Your task to perform on an android device: open a new tab in the chrome app Image 0: 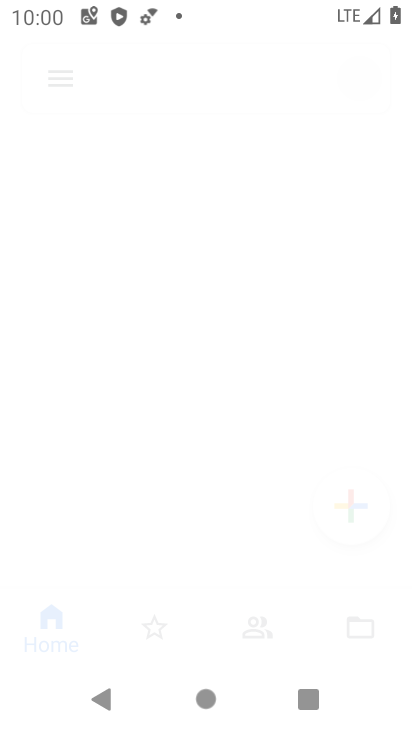
Step 0: drag from (186, 317) to (172, 147)
Your task to perform on an android device: open a new tab in the chrome app Image 1: 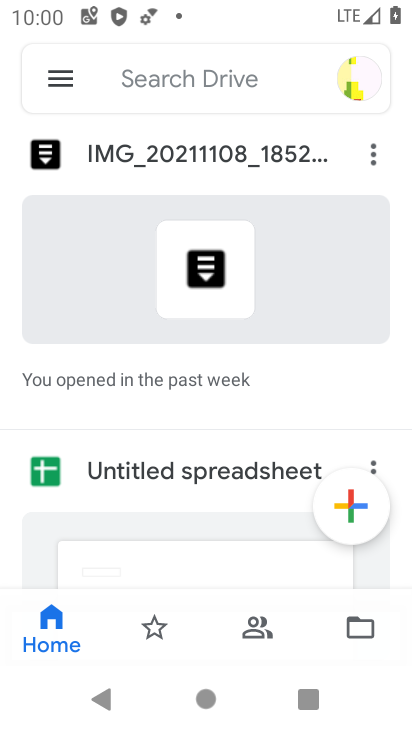
Step 1: press home button
Your task to perform on an android device: open a new tab in the chrome app Image 2: 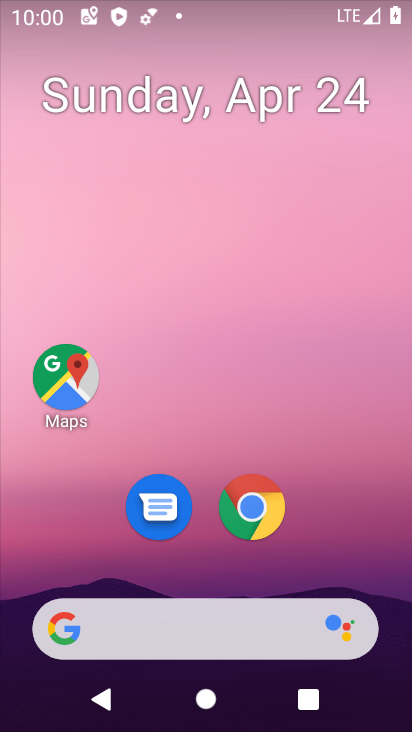
Step 2: drag from (143, 570) to (124, 105)
Your task to perform on an android device: open a new tab in the chrome app Image 3: 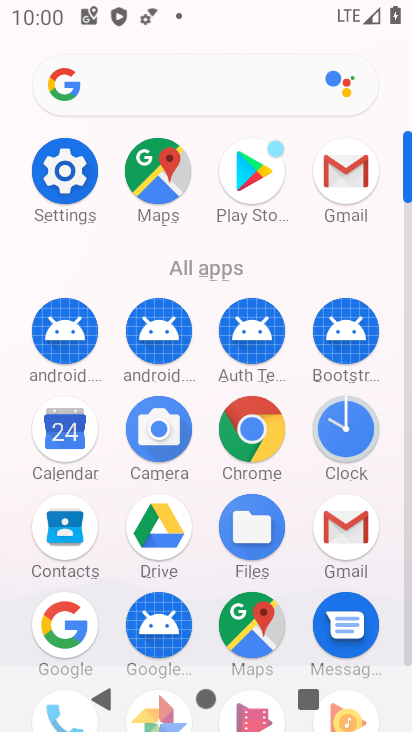
Step 3: click (252, 431)
Your task to perform on an android device: open a new tab in the chrome app Image 4: 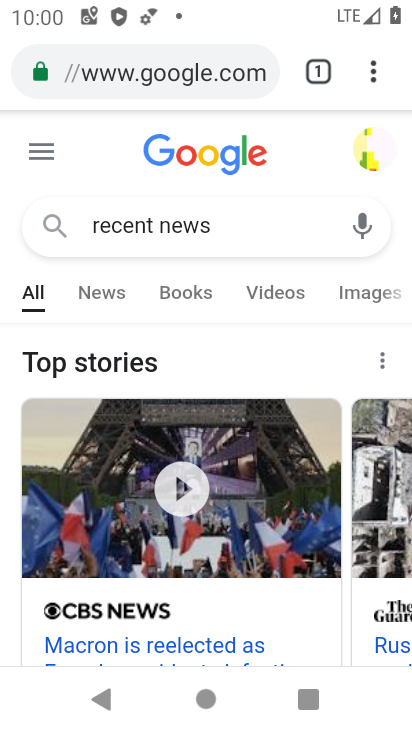
Step 4: click (116, 63)
Your task to perform on an android device: open a new tab in the chrome app Image 5: 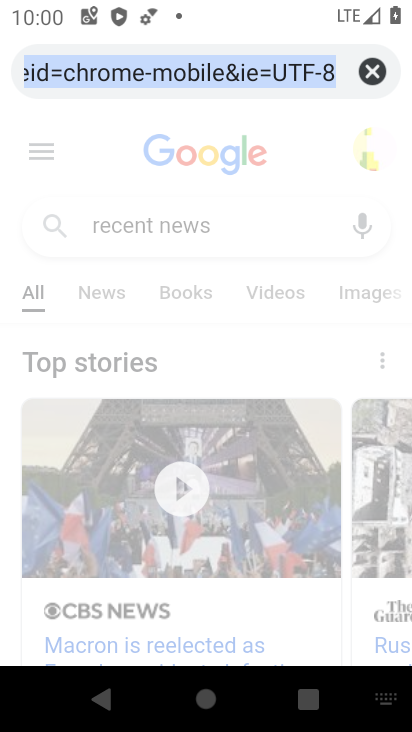
Step 5: click (298, 175)
Your task to perform on an android device: open a new tab in the chrome app Image 6: 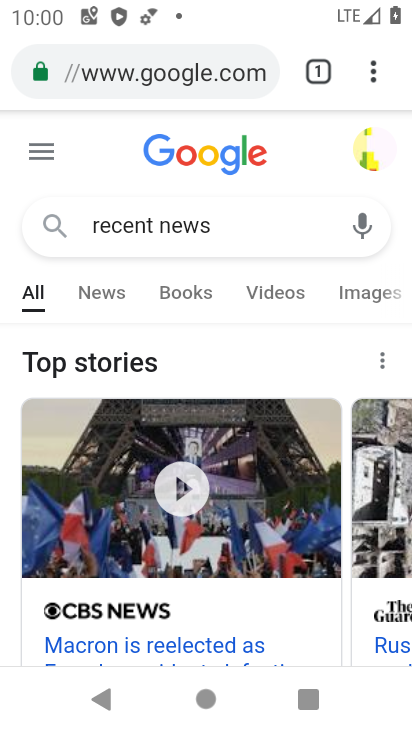
Step 6: click (326, 75)
Your task to perform on an android device: open a new tab in the chrome app Image 7: 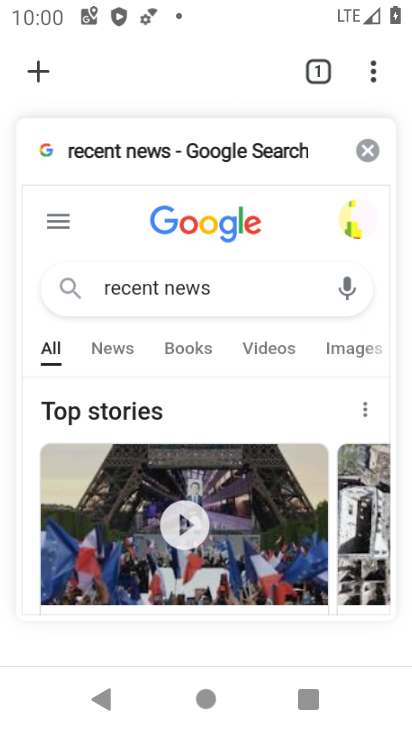
Step 7: click (52, 72)
Your task to perform on an android device: open a new tab in the chrome app Image 8: 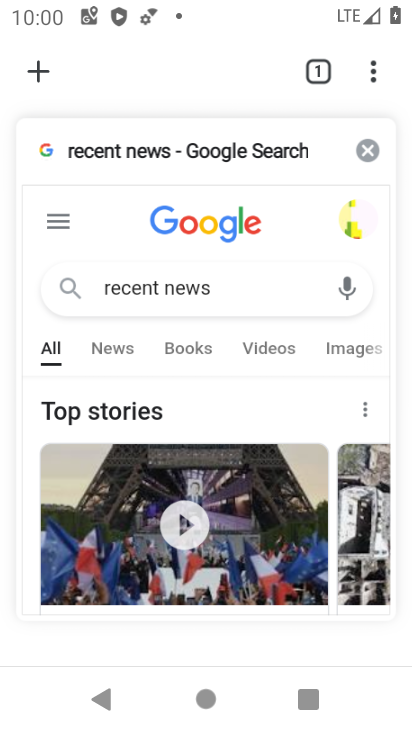
Step 8: click (43, 73)
Your task to perform on an android device: open a new tab in the chrome app Image 9: 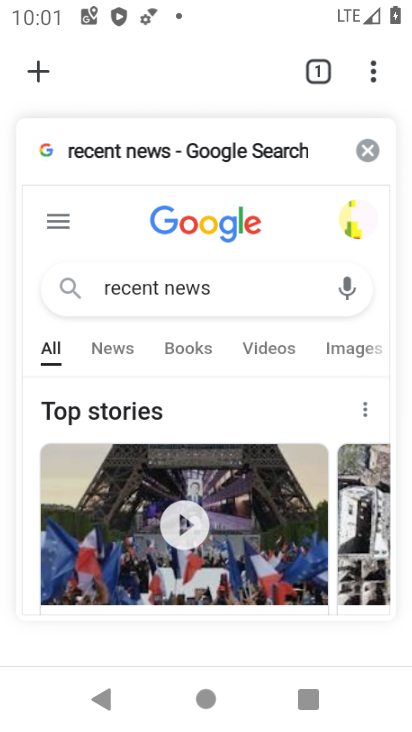
Step 9: click (374, 71)
Your task to perform on an android device: open a new tab in the chrome app Image 10: 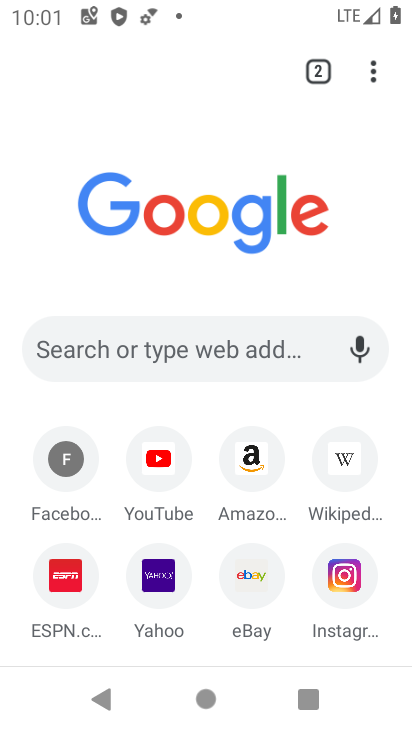
Step 10: task complete